Your task to perform on an android device: Go to settings Image 0: 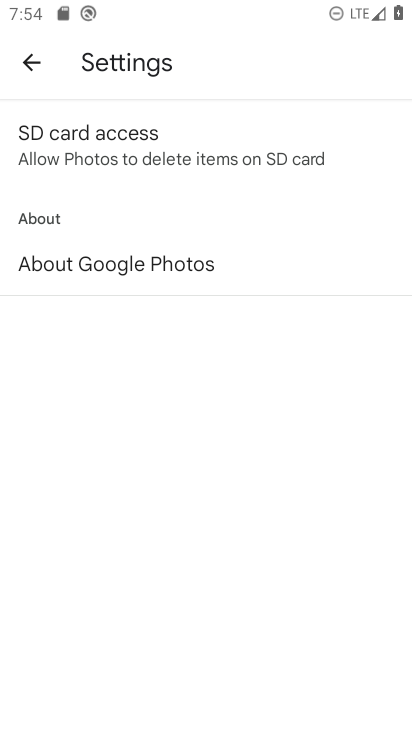
Step 0: press home button
Your task to perform on an android device: Go to settings Image 1: 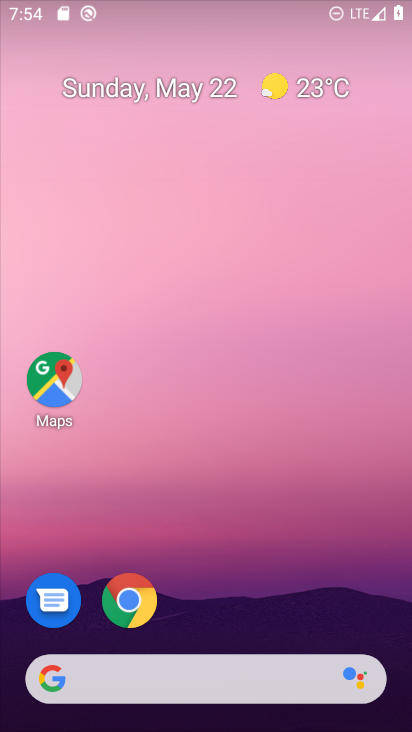
Step 1: drag from (334, 610) to (302, 163)
Your task to perform on an android device: Go to settings Image 2: 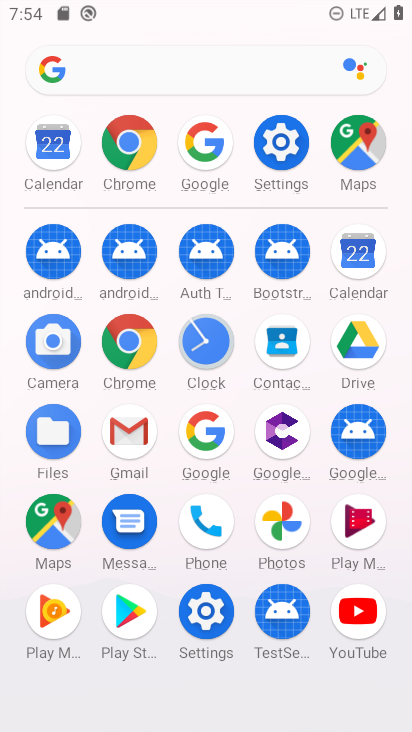
Step 2: click (224, 606)
Your task to perform on an android device: Go to settings Image 3: 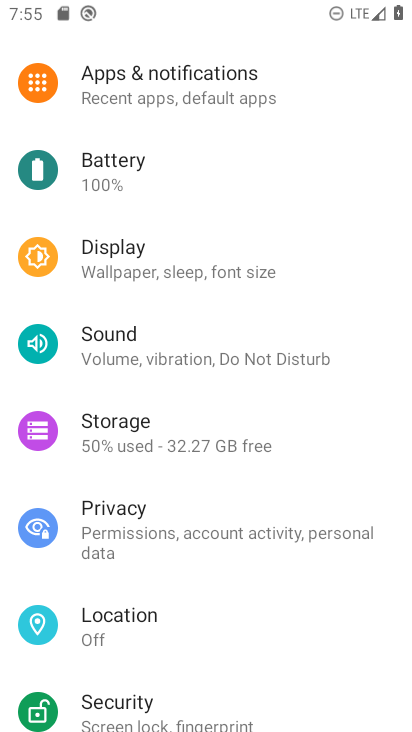
Step 3: task complete